Your task to perform on an android device: add a contact in the contacts app Image 0: 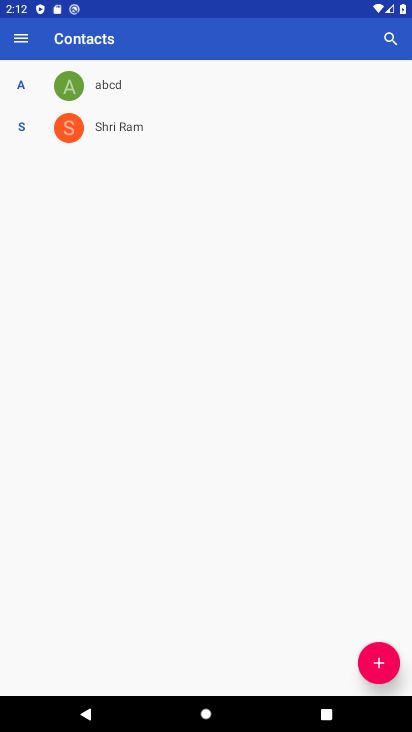
Step 0: click (378, 665)
Your task to perform on an android device: add a contact in the contacts app Image 1: 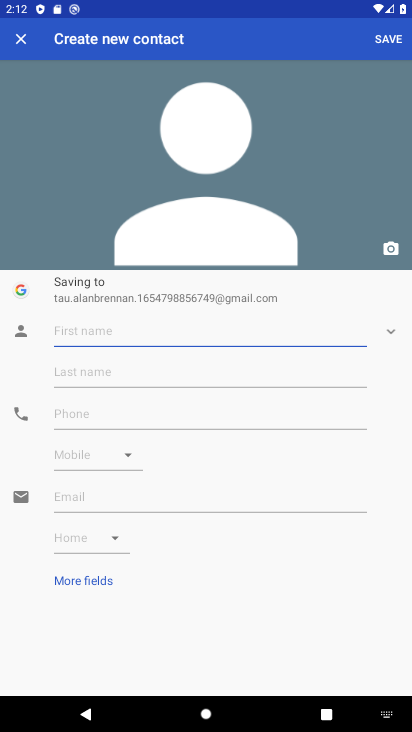
Step 1: type "oiuyhkj"
Your task to perform on an android device: add a contact in the contacts app Image 2: 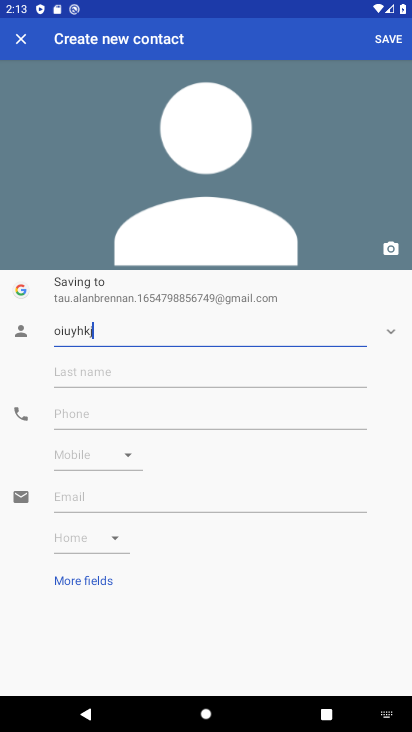
Step 2: click (64, 414)
Your task to perform on an android device: add a contact in the contacts app Image 3: 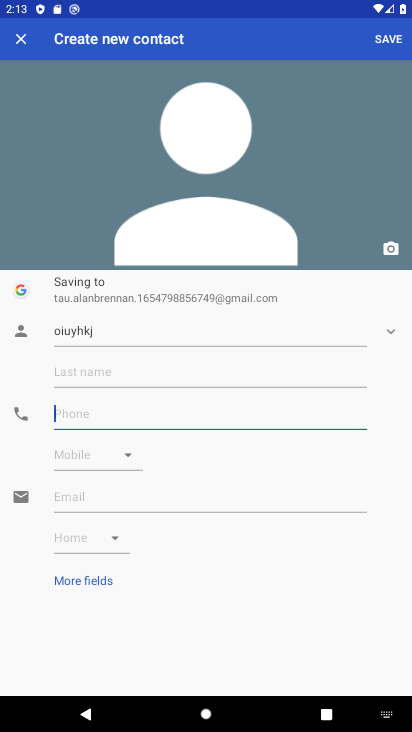
Step 3: type "98765678"
Your task to perform on an android device: add a contact in the contacts app Image 4: 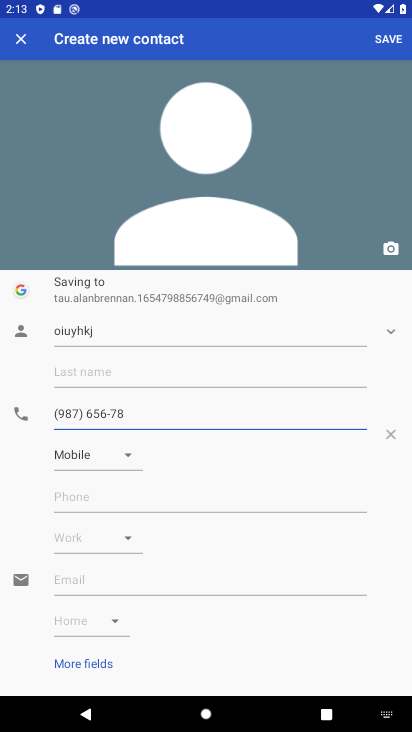
Step 4: click (125, 454)
Your task to perform on an android device: add a contact in the contacts app Image 5: 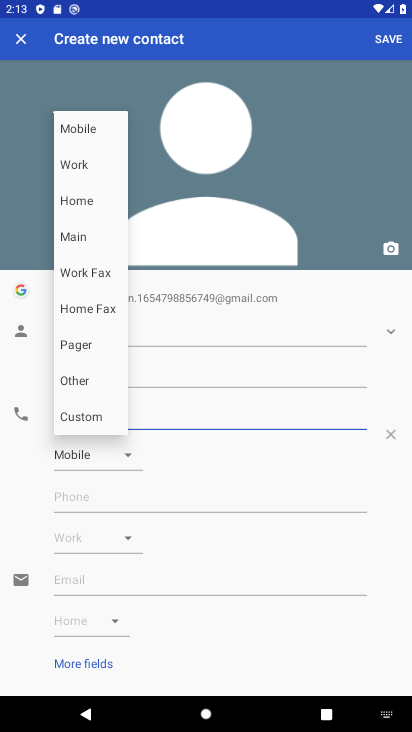
Step 5: click (85, 195)
Your task to perform on an android device: add a contact in the contacts app Image 6: 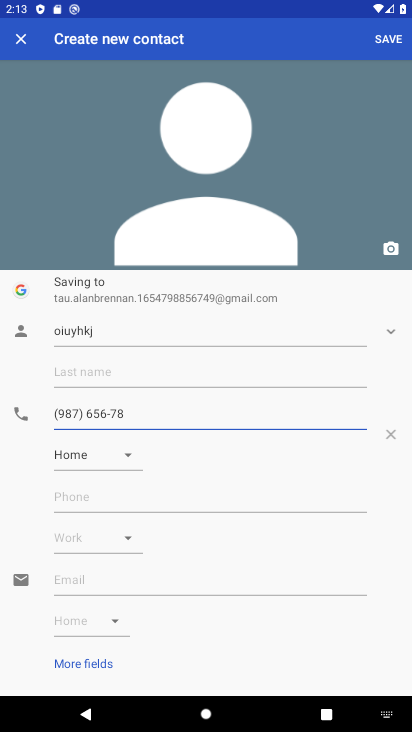
Step 6: click (385, 33)
Your task to perform on an android device: add a contact in the contacts app Image 7: 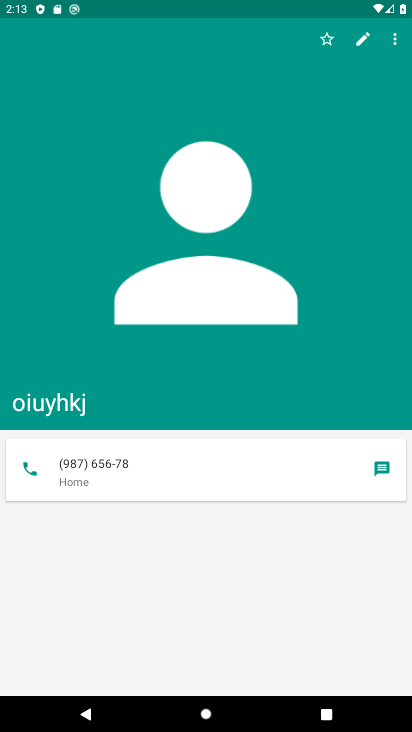
Step 7: task complete